Your task to perform on an android device: Open notification settings Image 0: 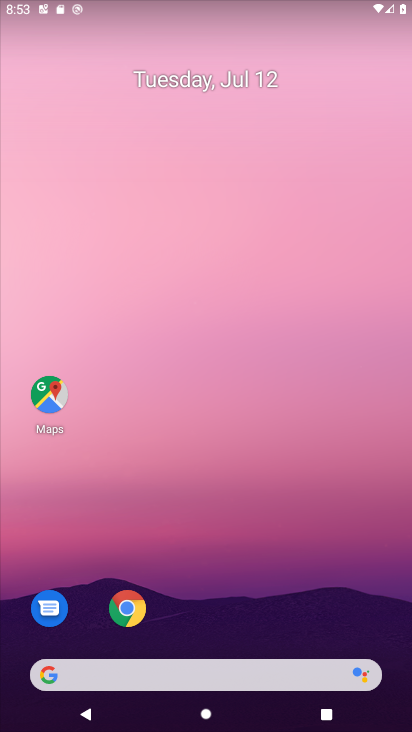
Step 0: press home button
Your task to perform on an android device: Open notification settings Image 1: 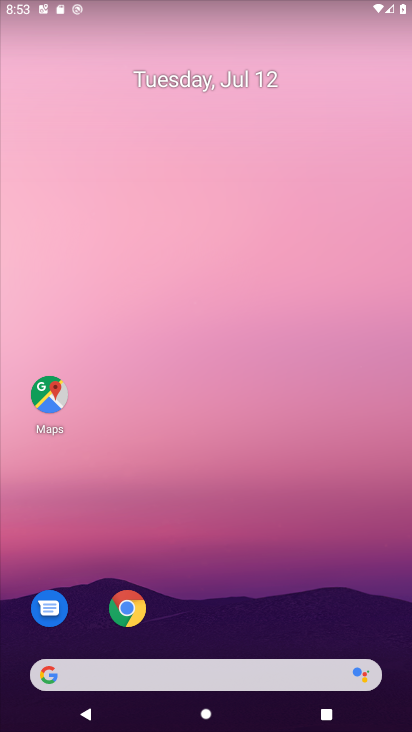
Step 1: drag from (207, 674) to (353, 99)
Your task to perform on an android device: Open notification settings Image 2: 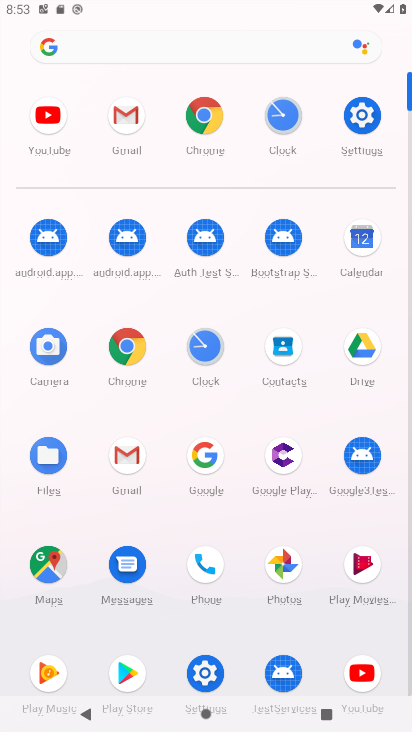
Step 2: click (365, 115)
Your task to perform on an android device: Open notification settings Image 3: 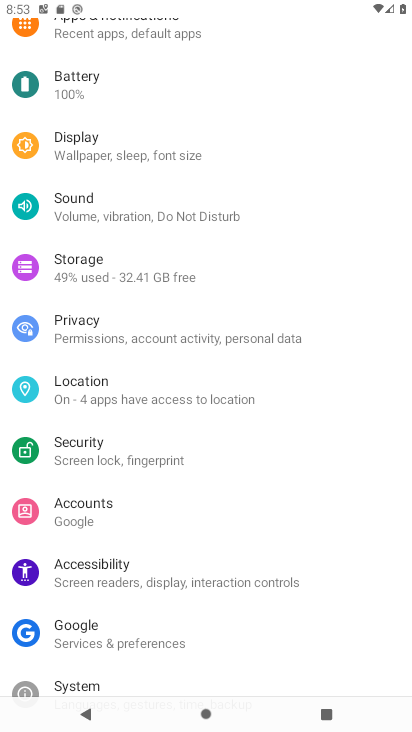
Step 3: drag from (257, 136) to (279, 559)
Your task to perform on an android device: Open notification settings Image 4: 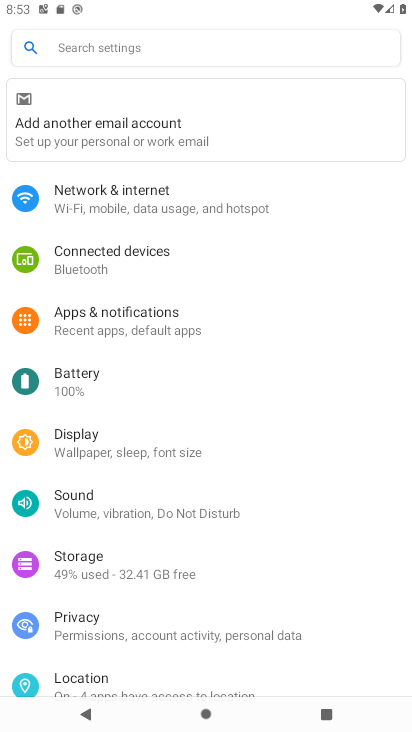
Step 4: click (127, 316)
Your task to perform on an android device: Open notification settings Image 5: 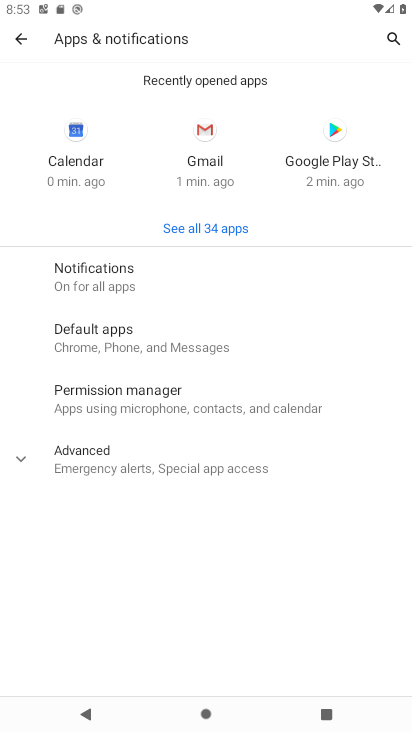
Step 5: click (127, 272)
Your task to perform on an android device: Open notification settings Image 6: 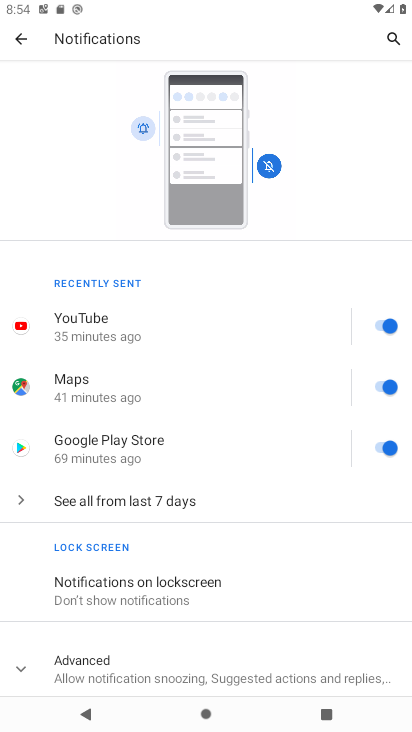
Step 6: task complete